Your task to perform on an android device: clear history in the chrome app Image 0: 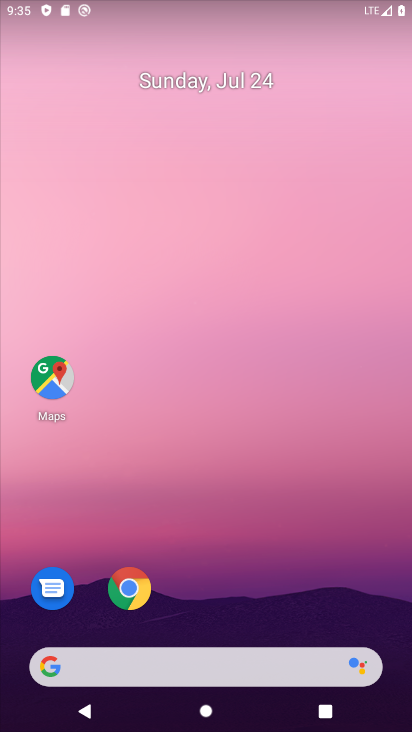
Step 0: click (130, 581)
Your task to perform on an android device: clear history in the chrome app Image 1: 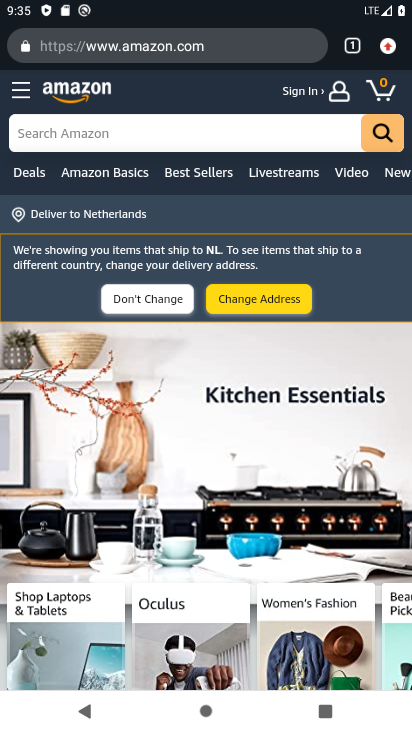
Step 1: click (388, 45)
Your task to perform on an android device: clear history in the chrome app Image 2: 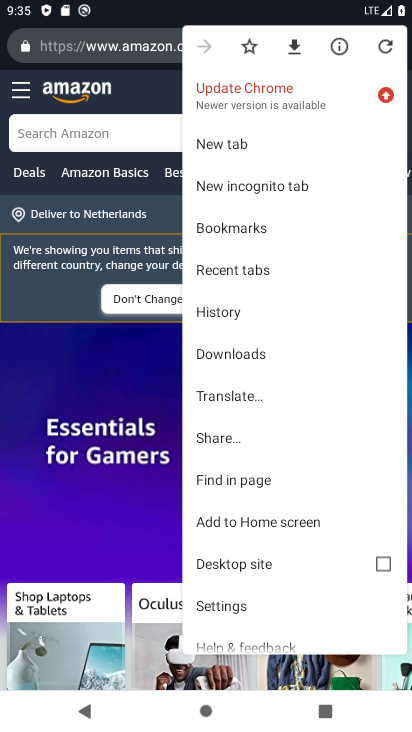
Step 2: click (242, 316)
Your task to perform on an android device: clear history in the chrome app Image 3: 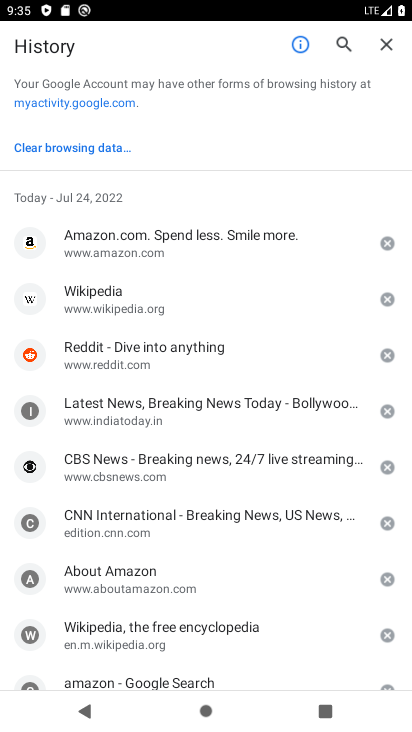
Step 3: click (93, 139)
Your task to perform on an android device: clear history in the chrome app Image 4: 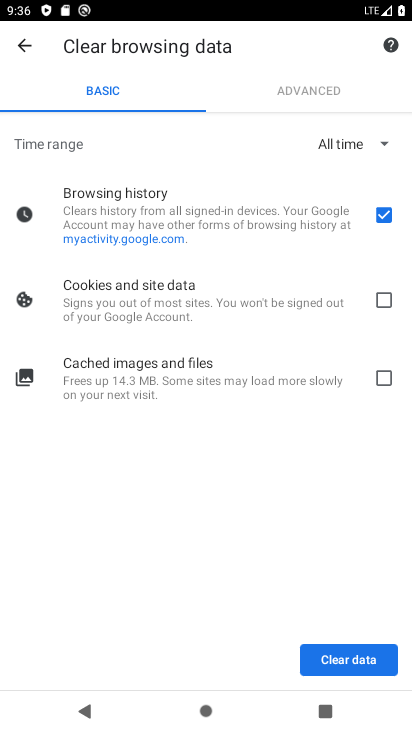
Step 4: click (375, 669)
Your task to perform on an android device: clear history in the chrome app Image 5: 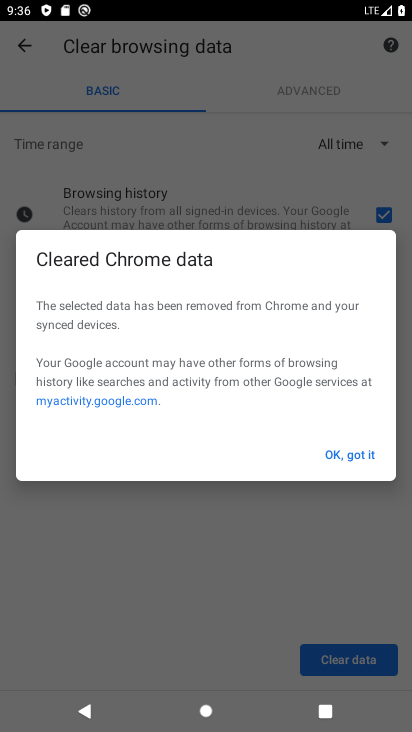
Step 5: click (346, 457)
Your task to perform on an android device: clear history in the chrome app Image 6: 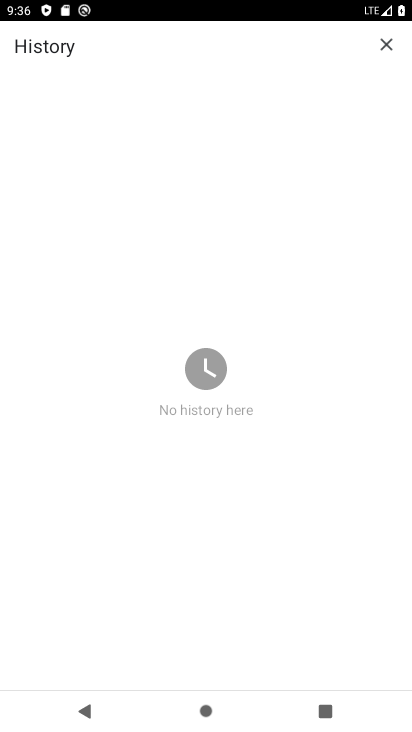
Step 6: task complete